Your task to perform on an android device: Go to Maps Image 0: 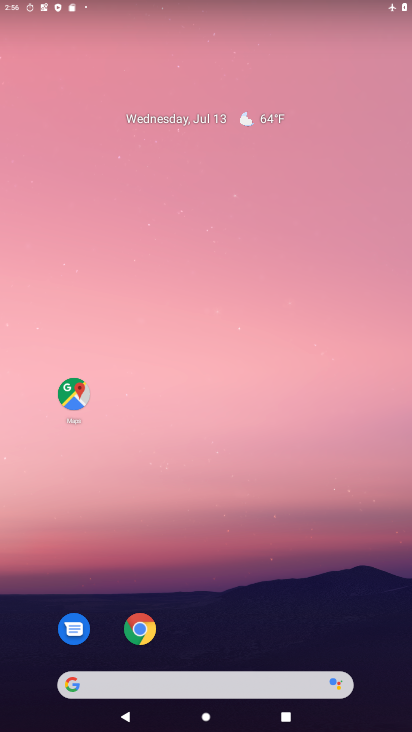
Step 0: drag from (307, 694) to (355, 167)
Your task to perform on an android device: Go to Maps Image 1: 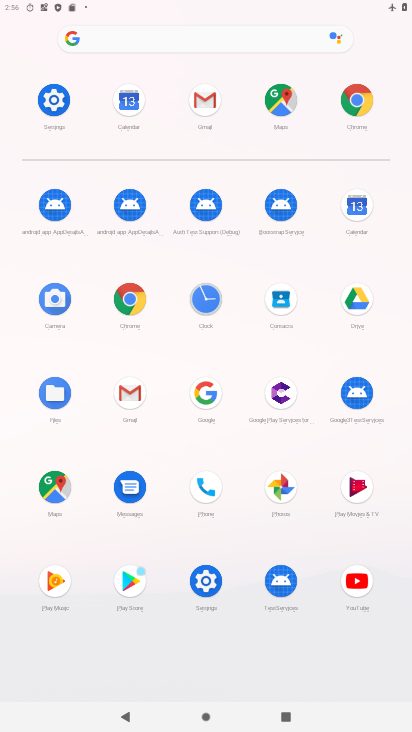
Step 1: click (54, 489)
Your task to perform on an android device: Go to Maps Image 2: 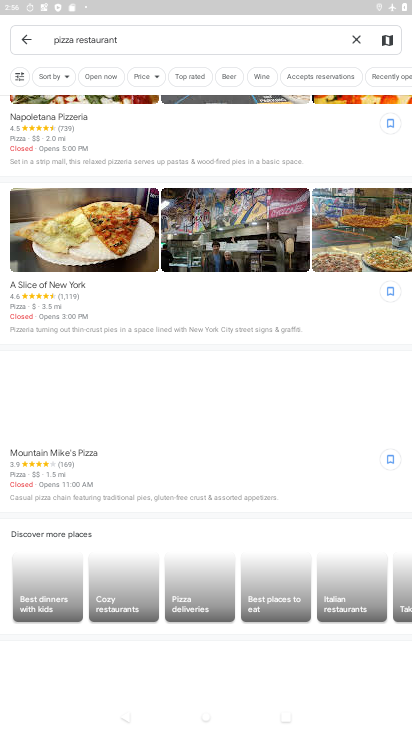
Step 2: task complete